Your task to perform on an android device: allow cookies in the chrome app Image 0: 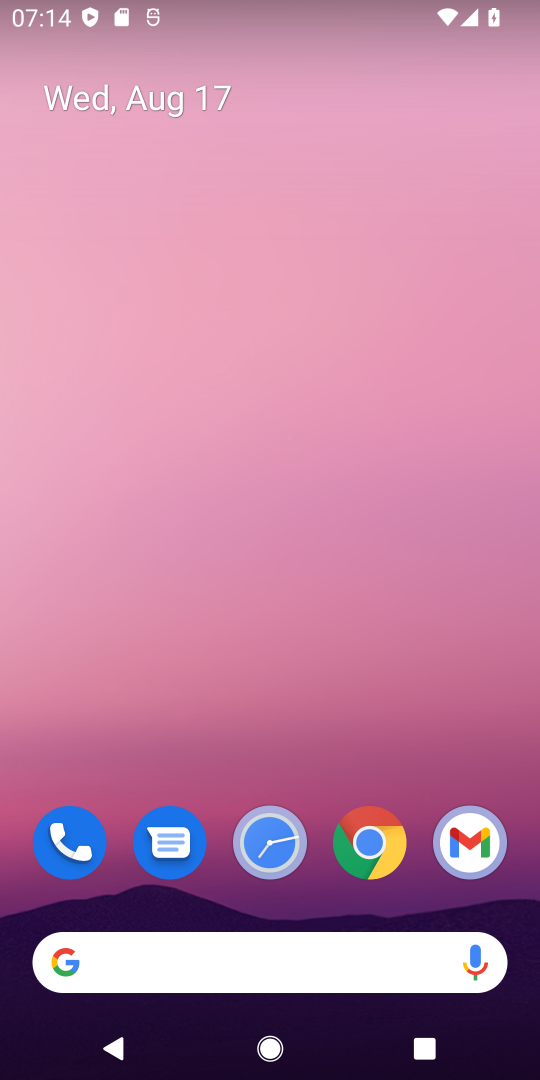
Step 0: click (364, 842)
Your task to perform on an android device: allow cookies in the chrome app Image 1: 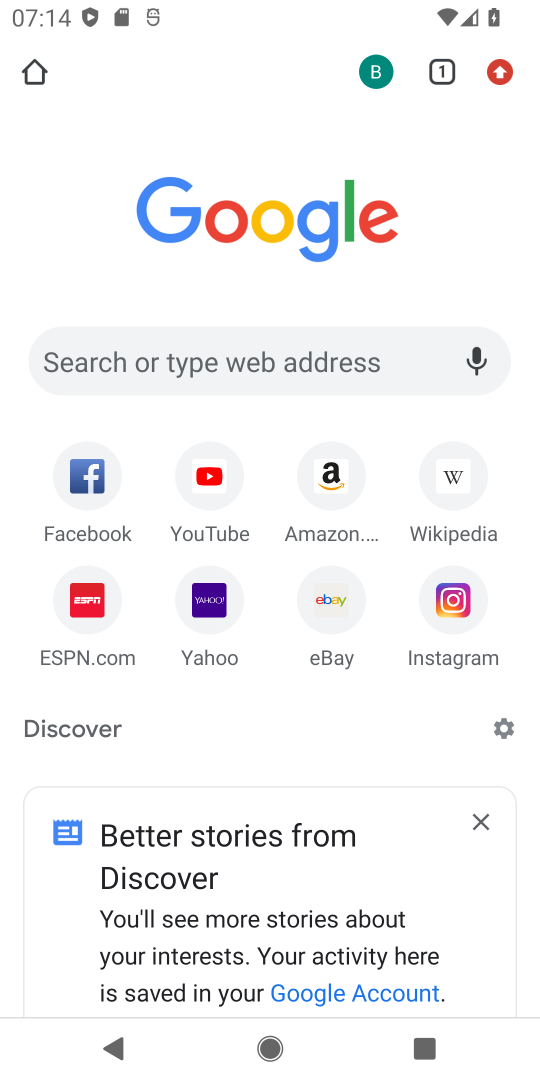
Step 1: click (498, 71)
Your task to perform on an android device: allow cookies in the chrome app Image 2: 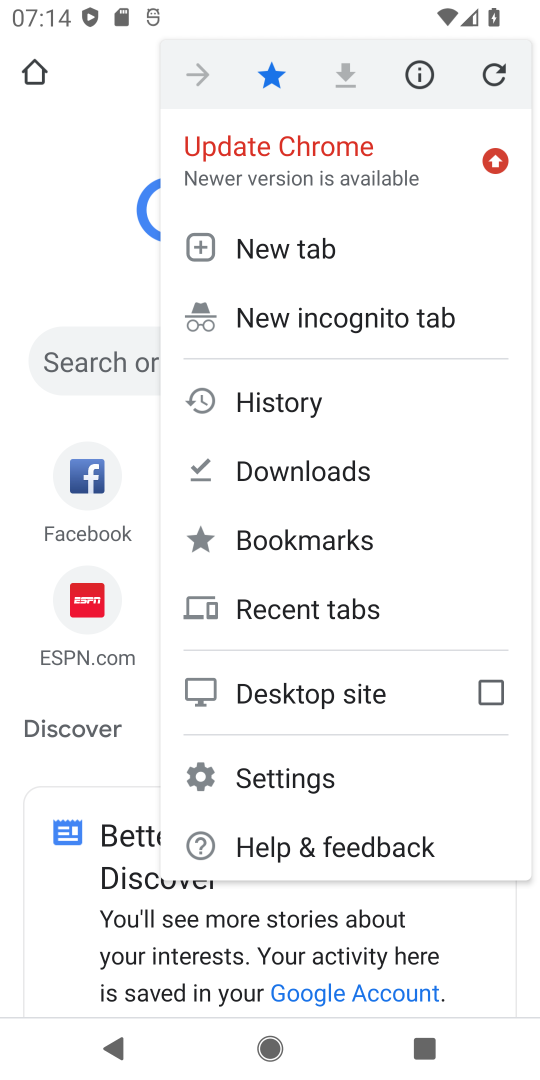
Step 2: click (309, 786)
Your task to perform on an android device: allow cookies in the chrome app Image 3: 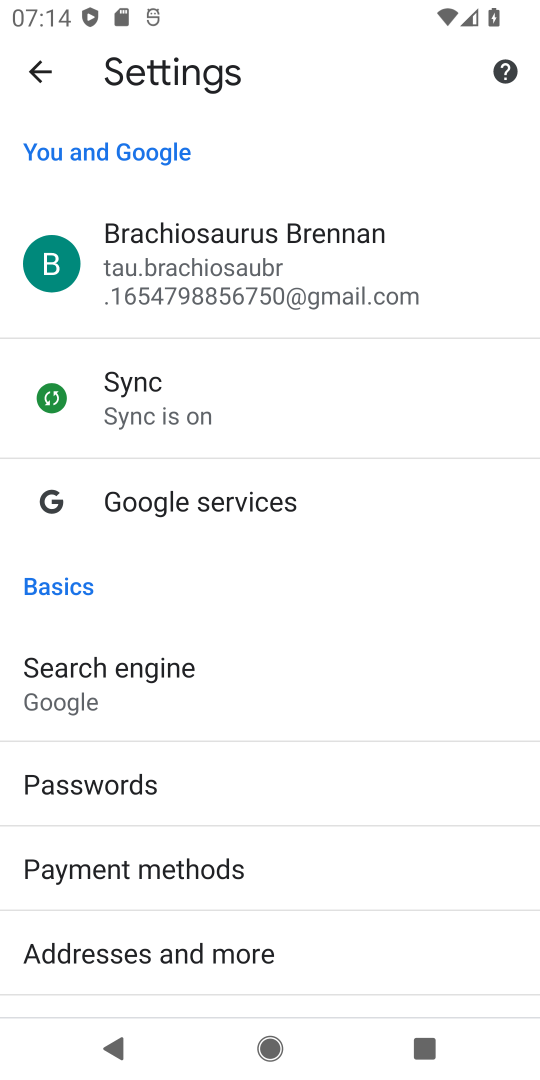
Step 3: drag from (309, 890) to (349, 267)
Your task to perform on an android device: allow cookies in the chrome app Image 4: 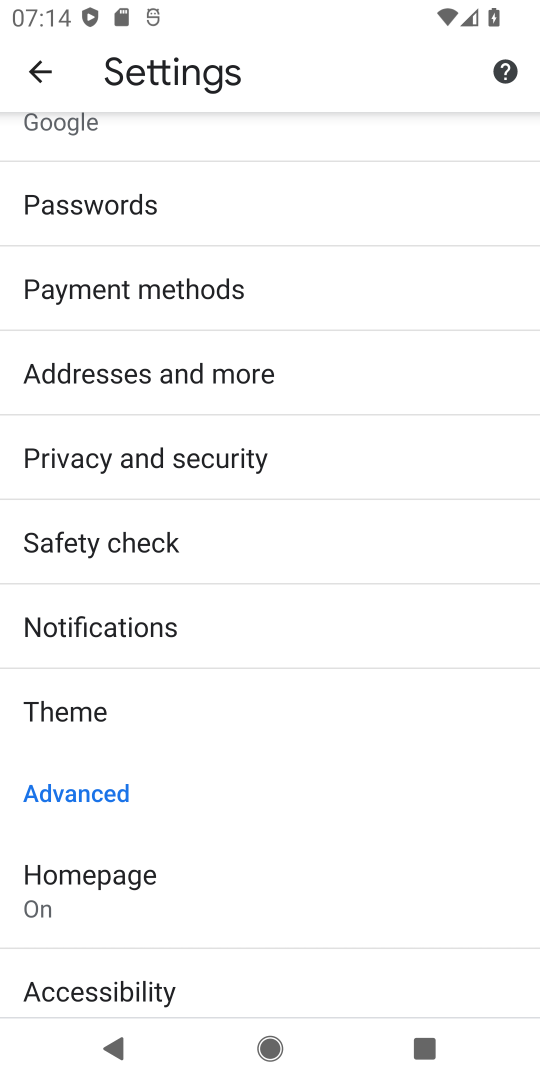
Step 4: drag from (242, 708) to (252, 205)
Your task to perform on an android device: allow cookies in the chrome app Image 5: 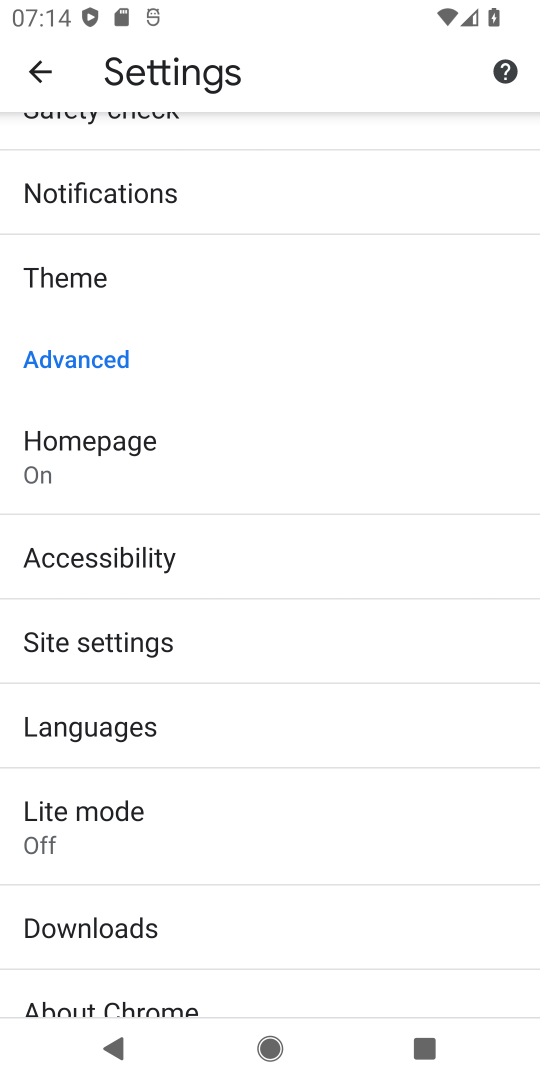
Step 5: click (163, 637)
Your task to perform on an android device: allow cookies in the chrome app Image 6: 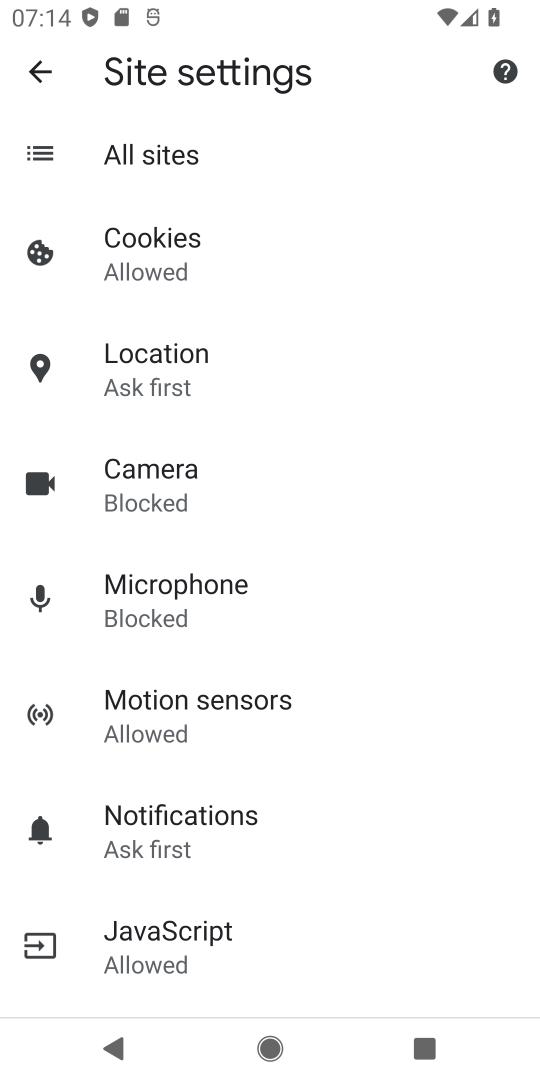
Step 6: click (202, 259)
Your task to perform on an android device: allow cookies in the chrome app Image 7: 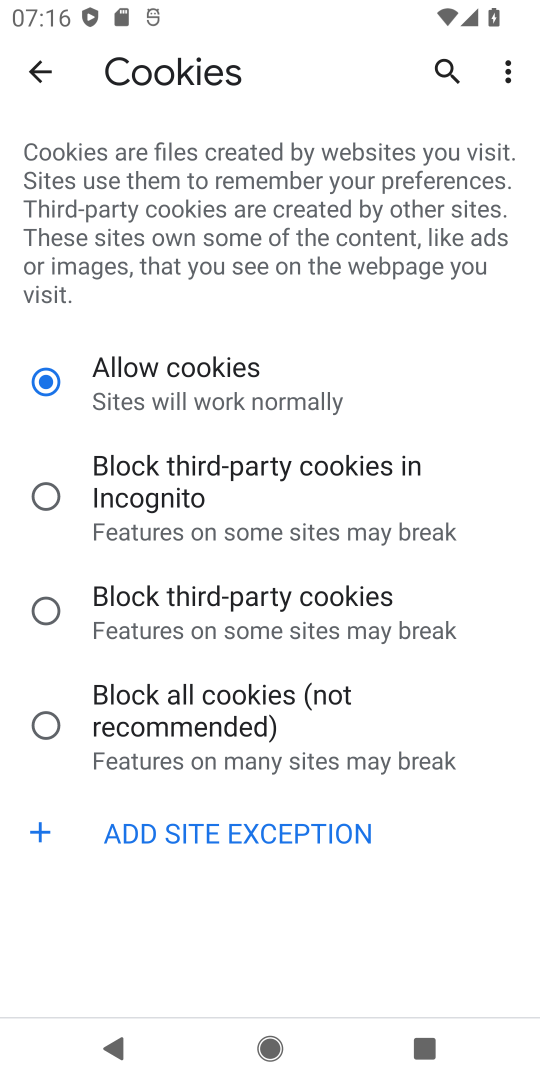
Step 7: task complete